Your task to perform on an android device: Go to Google maps Image 0: 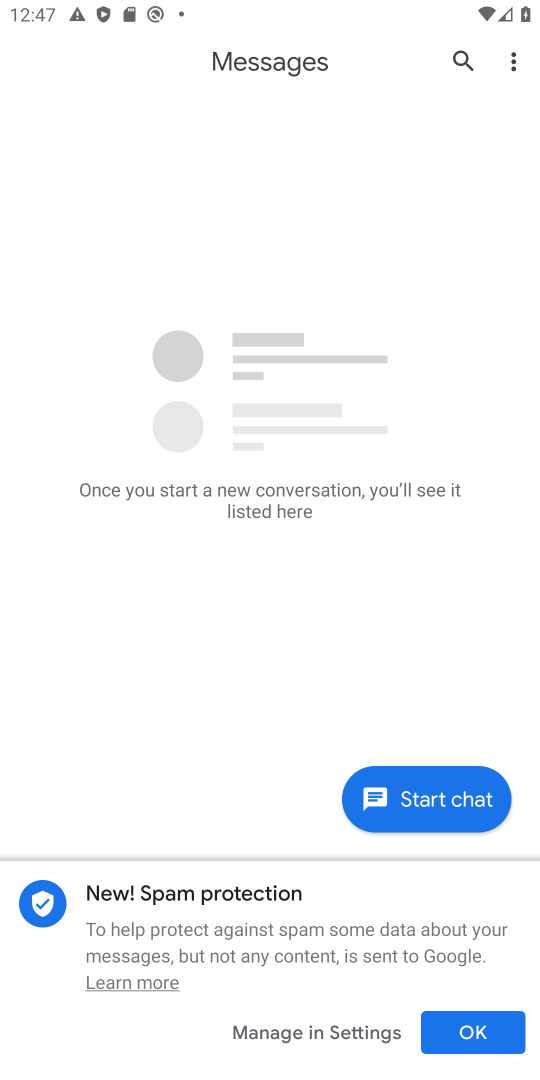
Step 0: press home button
Your task to perform on an android device: Go to Google maps Image 1: 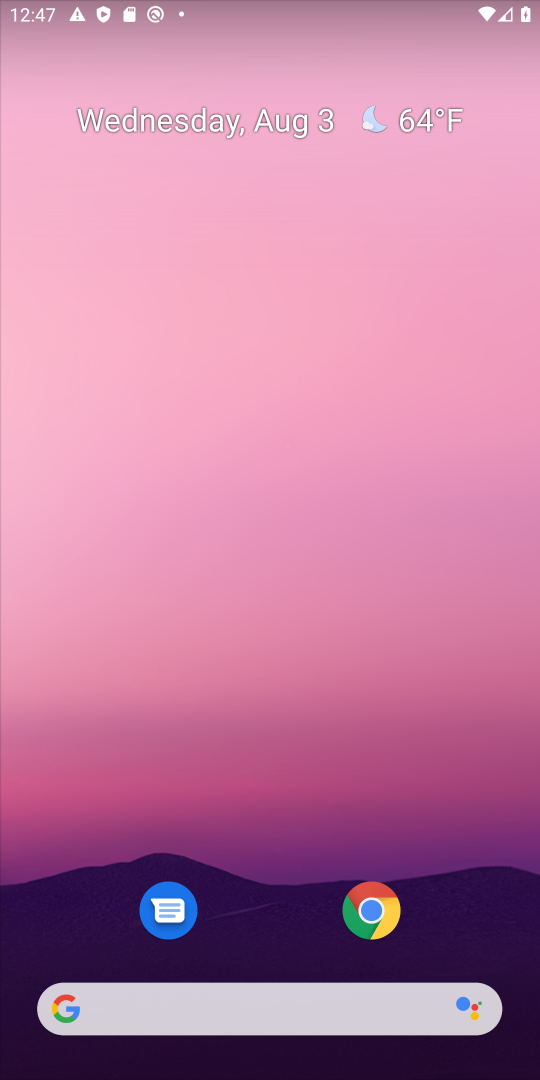
Step 1: drag from (214, 942) to (291, 56)
Your task to perform on an android device: Go to Google maps Image 2: 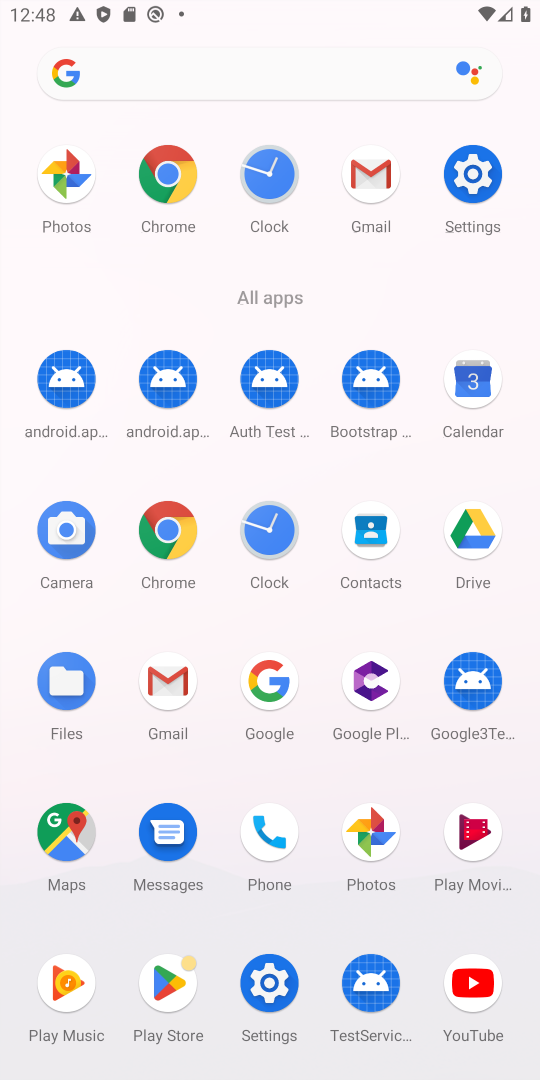
Step 2: click (71, 834)
Your task to perform on an android device: Go to Google maps Image 3: 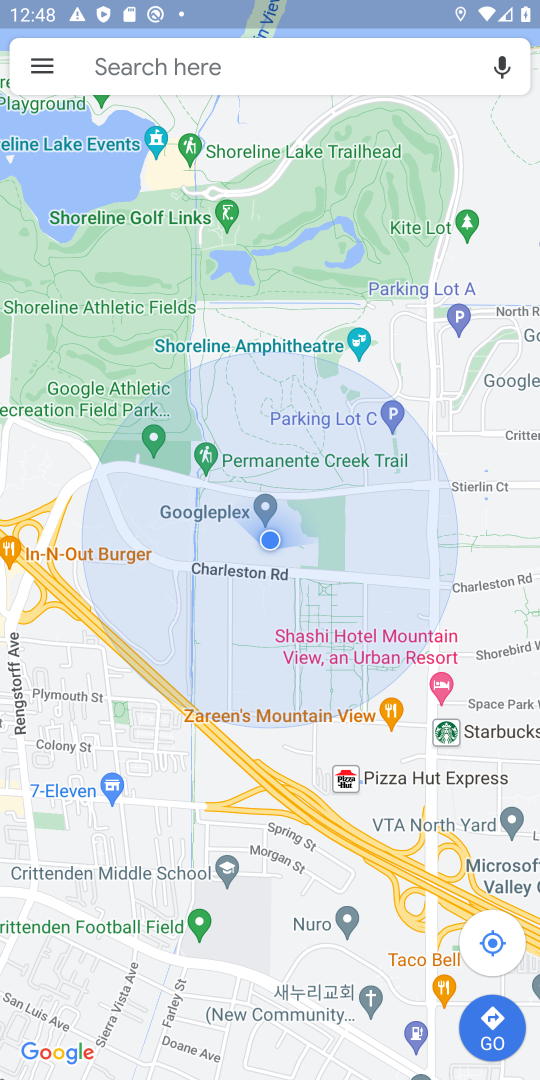
Step 3: task complete